Your task to perform on an android device: turn on bluetooth scan Image 0: 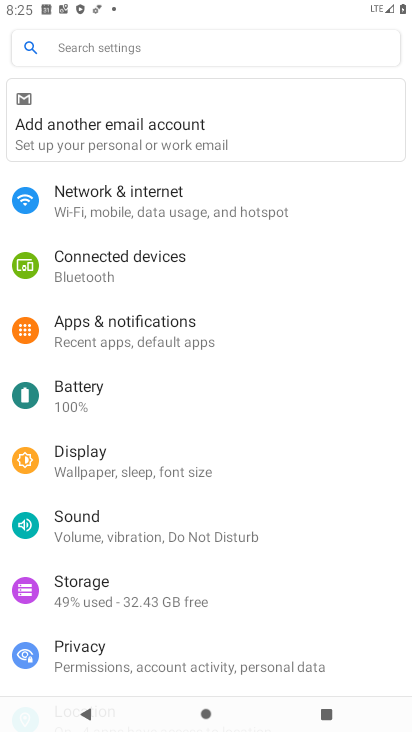
Step 0: press home button
Your task to perform on an android device: turn on bluetooth scan Image 1: 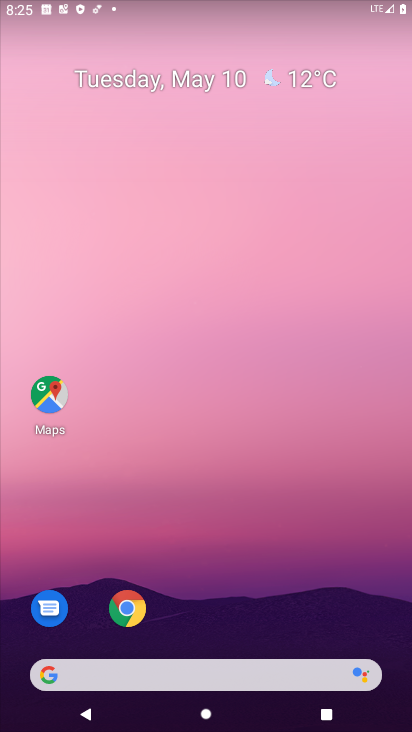
Step 1: drag from (175, 663) to (298, 134)
Your task to perform on an android device: turn on bluetooth scan Image 2: 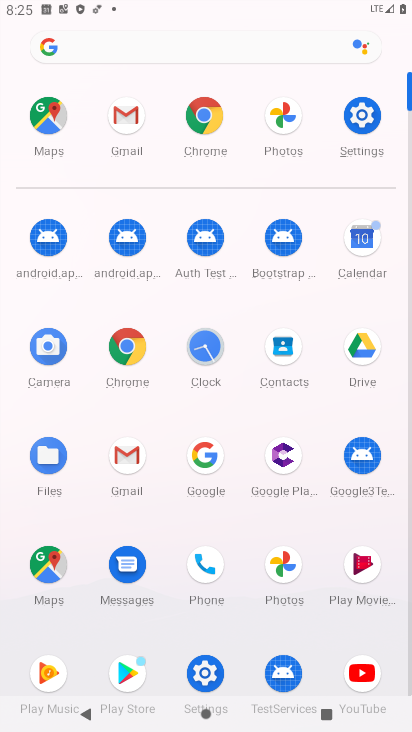
Step 2: click (363, 119)
Your task to perform on an android device: turn on bluetooth scan Image 3: 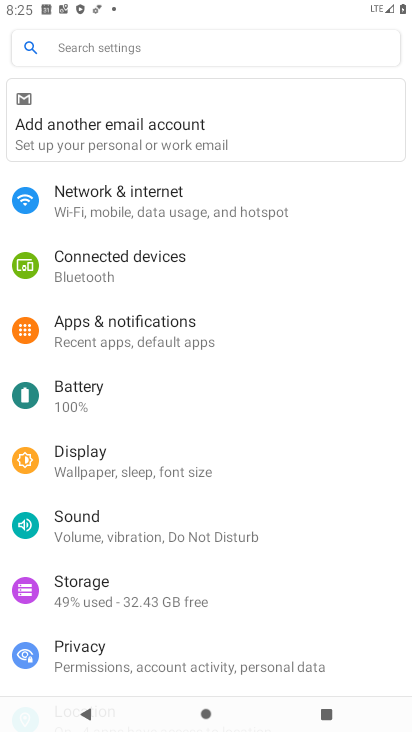
Step 3: drag from (146, 581) to (283, 265)
Your task to perform on an android device: turn on bluetooth scan Image 4: 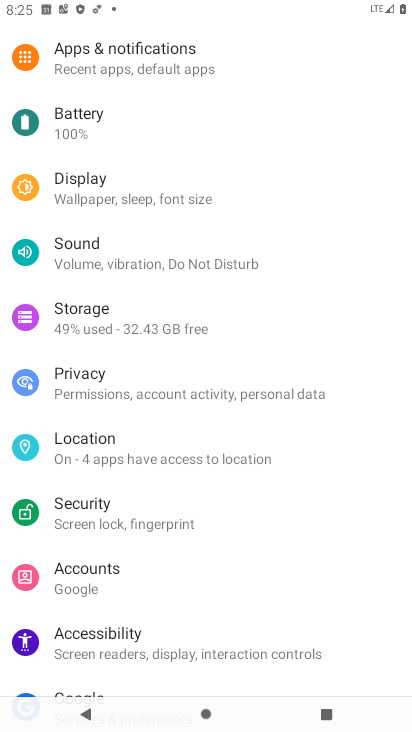
Step 4: click (134, 457)
Your task to perform on an android device: turn on bluetooth scan Image 5: 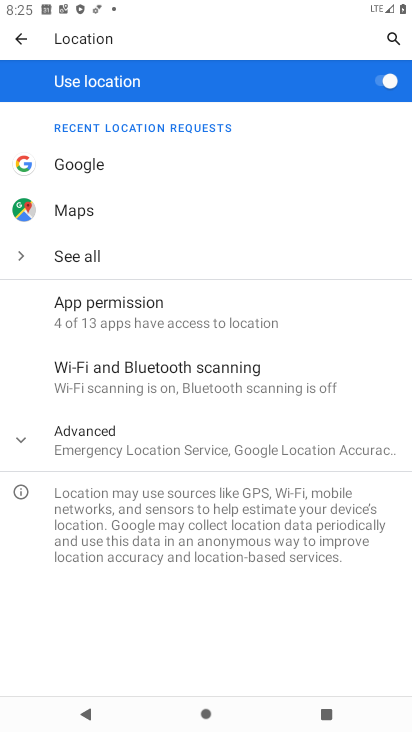
Step 5: click (195, 372)
Your task to perform on an android device: turn on bluetooth scan Image 6: 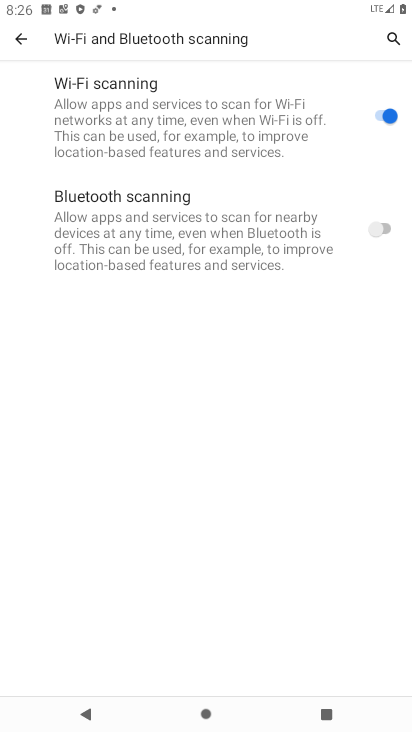
Step 6: click (383, 226)
Your task to perform on an android device: turn on bluetooth scan Image 7: 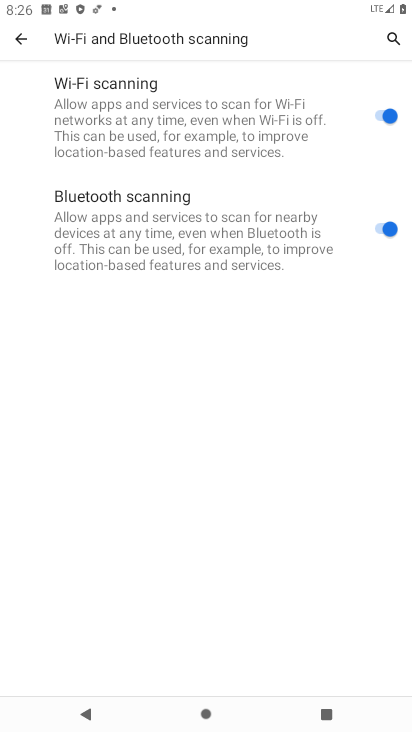
Step 7: task complete